Your task to perform on an android device: turn on location history Image 0: 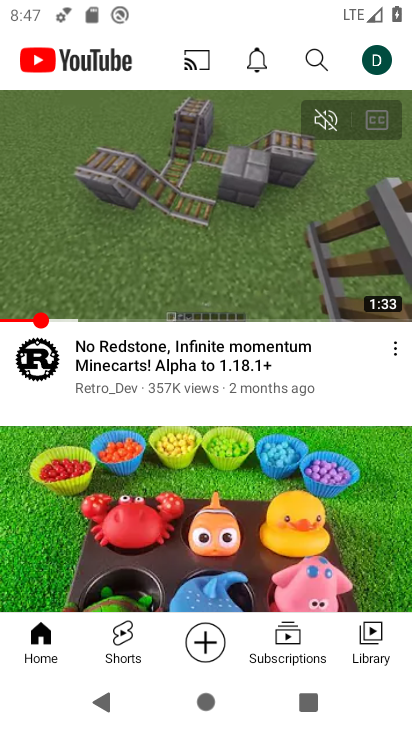
Step 0: press home button
Your task to perform on an android device: turn on location history Image 1: 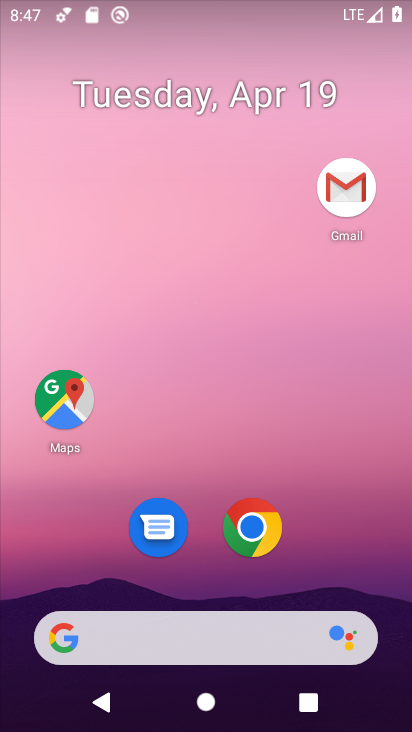
Step 1: drag from (384, 477) to (384, 103)
Your task to perform on an android device: turn on location history Image 2: 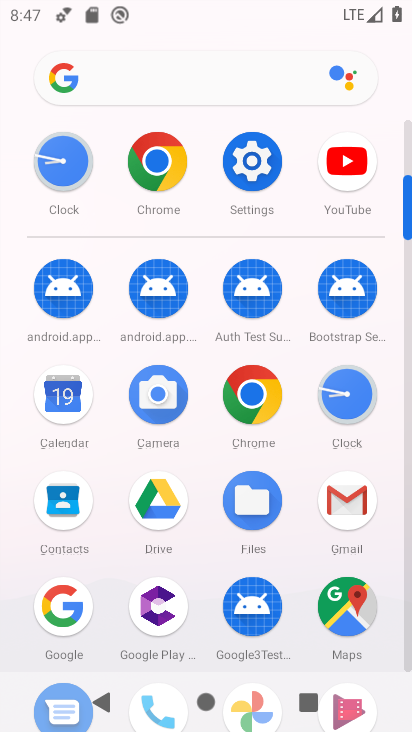
Step 2: click (261, 176)
Your task to perform on an android device: turn on location history Image 3: 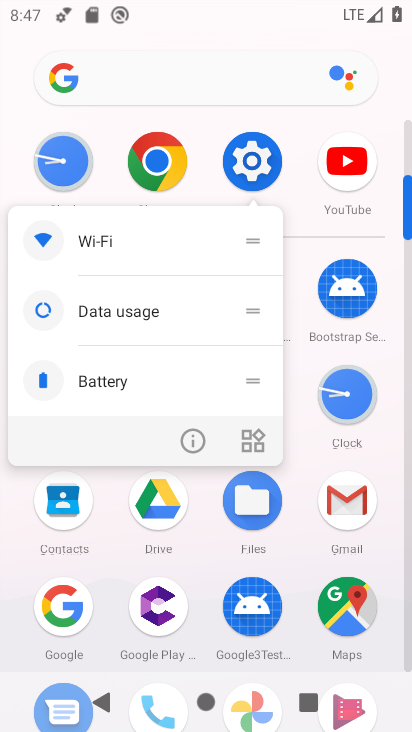
Step 3: click (261, 176)
Your task to perform on an android device: turn on location history Image 4: 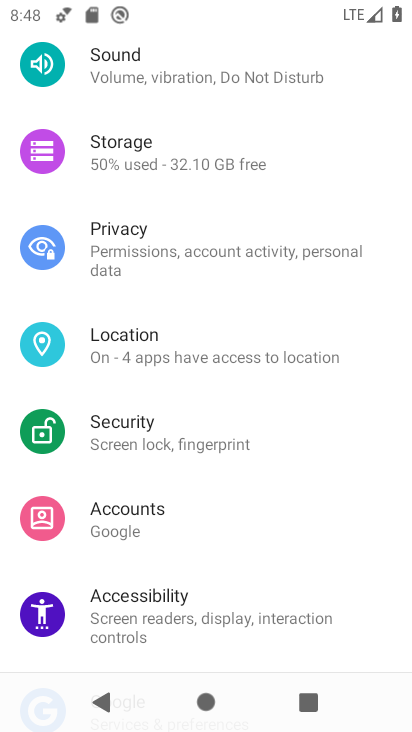
Step 4: drag from (358, 470) to (373, 157)
Your task to perform on an android device: turn on location history Image 5: 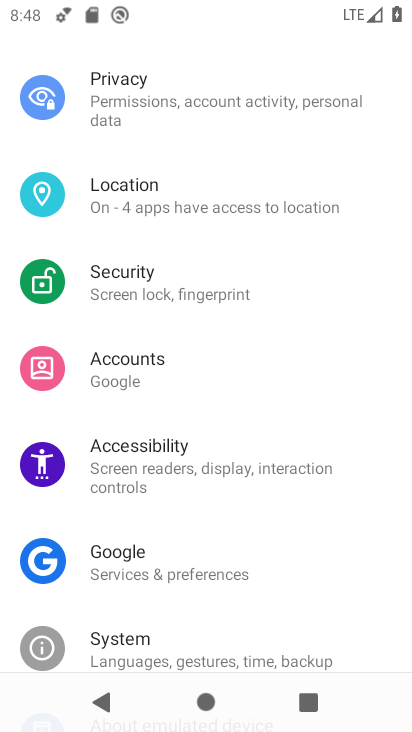
Step 5: drag from (358, 553) to (374, 319)
Your task to perform on an android device: turn on location history Image 6: 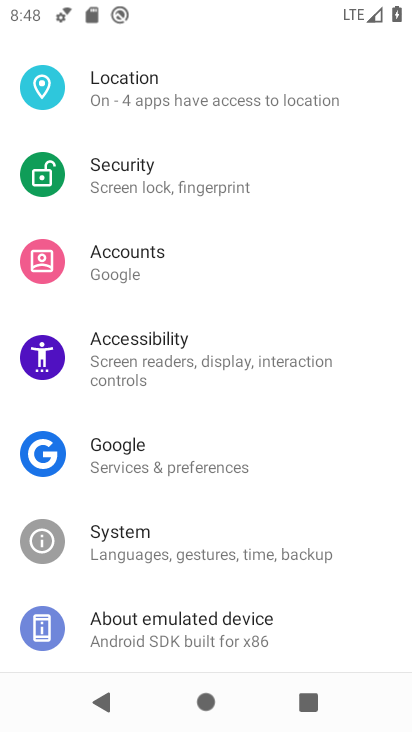
Step 6: click (147, 81)
Your task to perform on an android device: turn on location history Image 7: 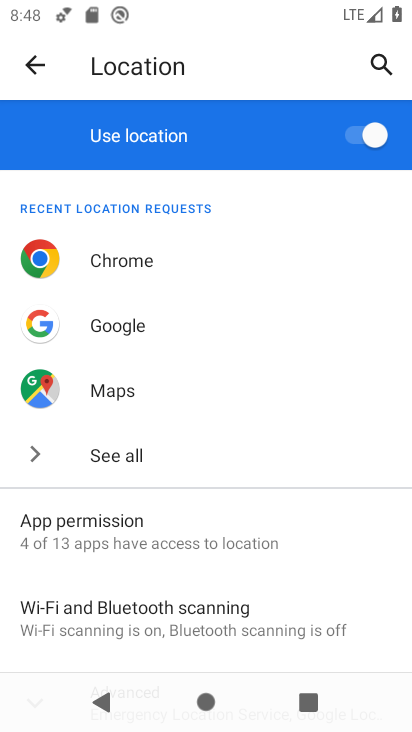
Step 7: drag from (345, 533) to (339, 270)
Your task to perform on an android device: turn on location history Image 8: 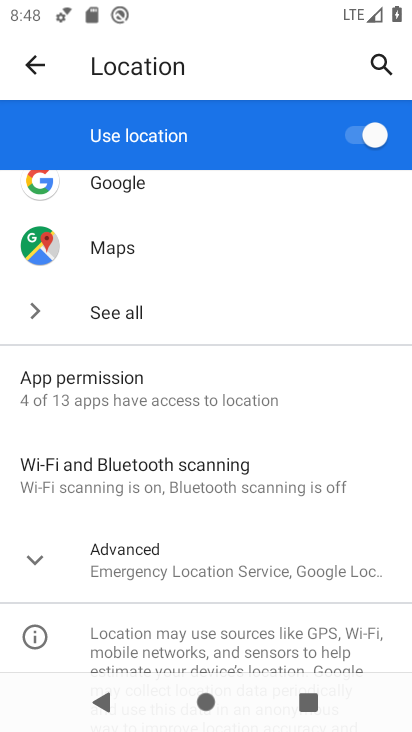
Step 8: click (324, 564)
Your task to perform on an android device: turn on location history Image 9: 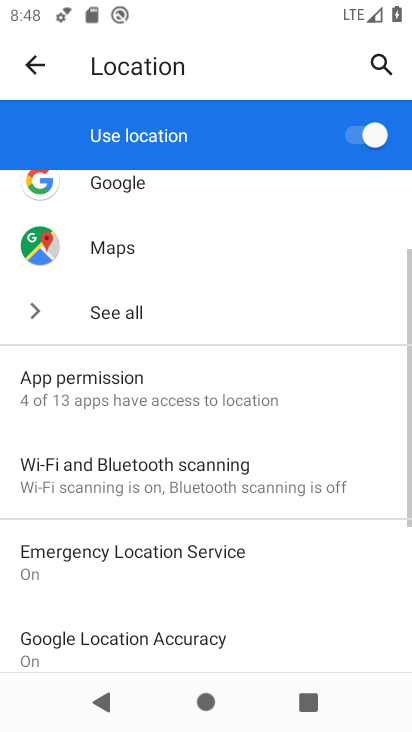
Step 9: drag from (371, 584) to (360, 326)
Your task to perform on an android device: turn on location history Image 10: 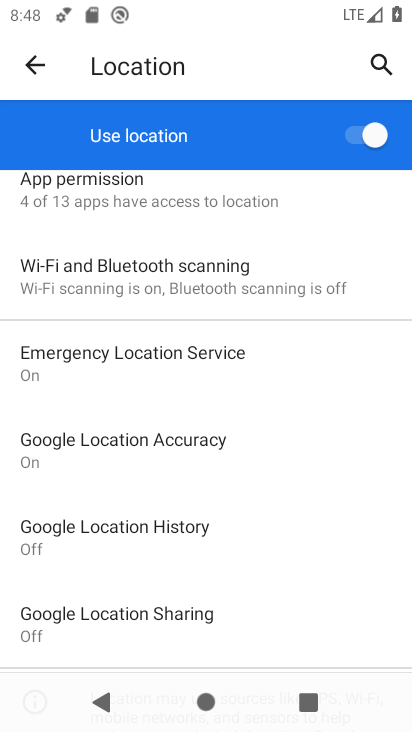
Step 10: click (191, 535)
Your task to perform on an android device: turn on location history Image 11: 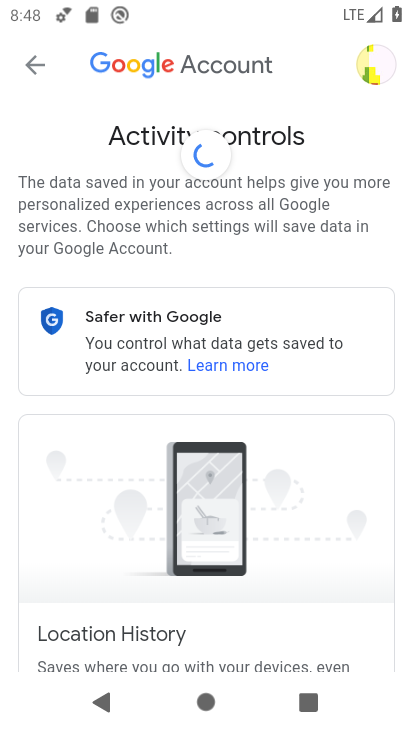
Step 11: drag from (345, 466) to (349, 193)
Your task to perform on an android device: turn on location history Image 12: 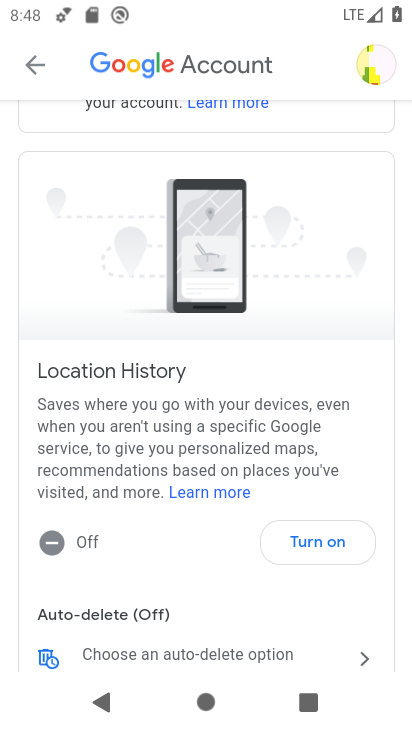
Step 12: drag from (269, 390) to (301, 297)
Your task to perform on an android device: turn on location history Image 13: 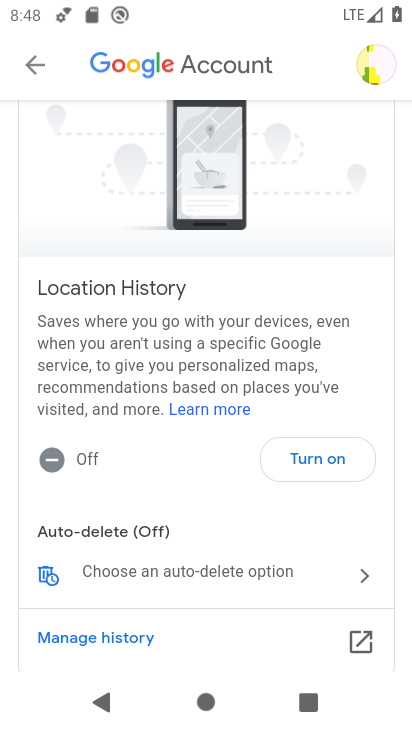
Step 13: click (333, 451)
Your task to perform on an android device: turn on location history Image 14: 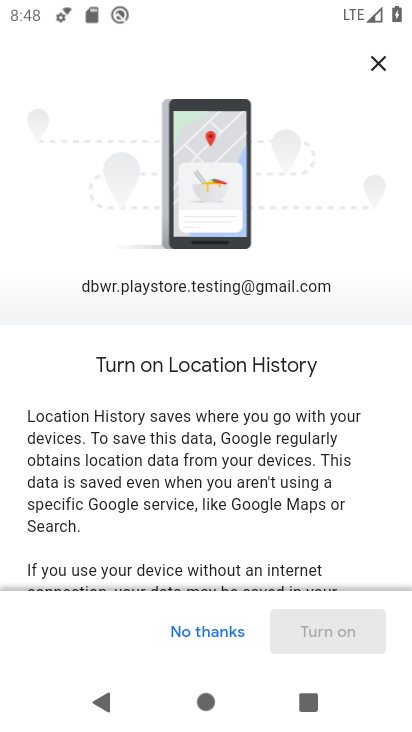
Step 14: drag from (306, 536) to (331, 190)
Your task to perform on an android device: turn on location history Image 15: 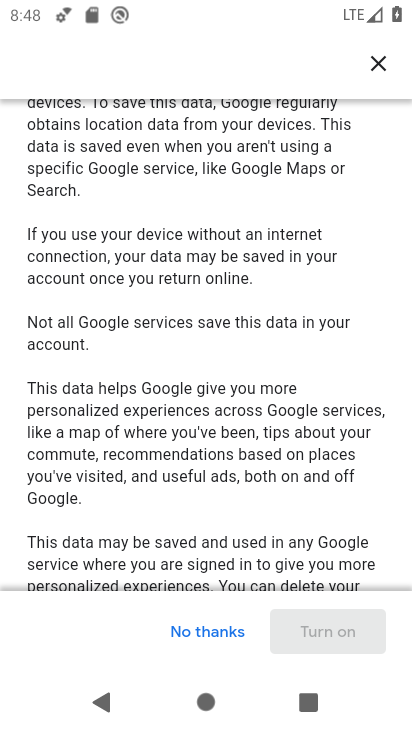
Step 15: drag from (310, 453) to (311, 204)
Your task to perform on an android device: turn on location history Image 16: 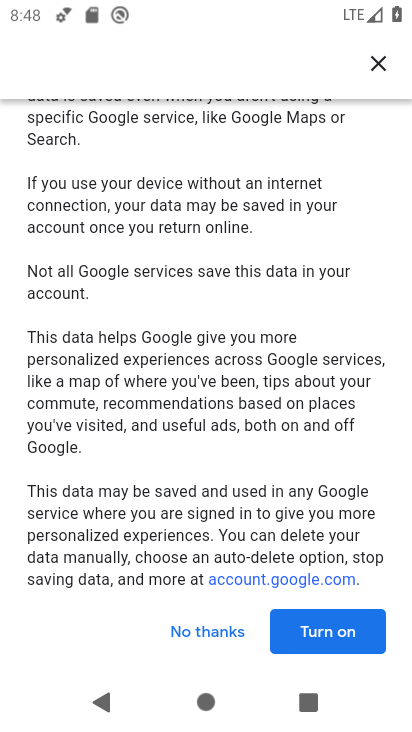
Step 16: click (331, 629)
Your task to perform on an android device: turn on location history Image 17: 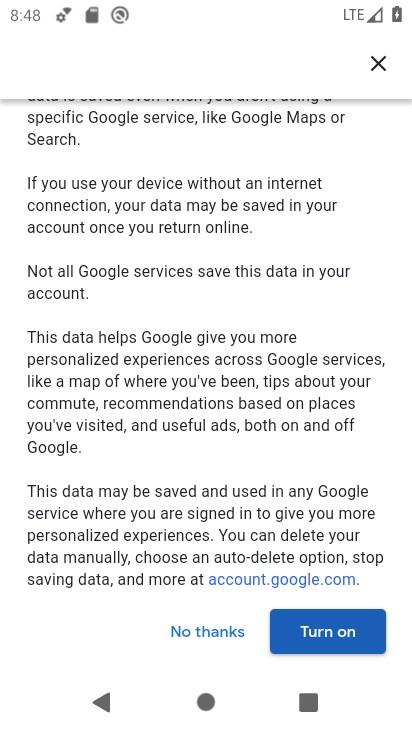
Step 17: click (346, 638)
Your task to perform on an android device: turn on location history Image 18: 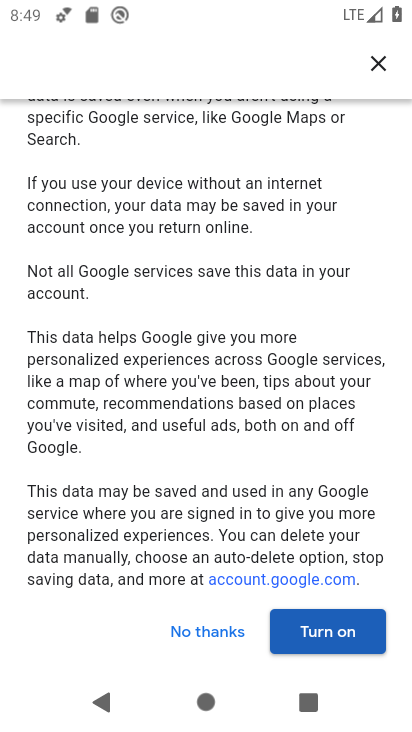
Step 18: click (343, 634)
Your task to perform on an android device: turn on location history Image 19: 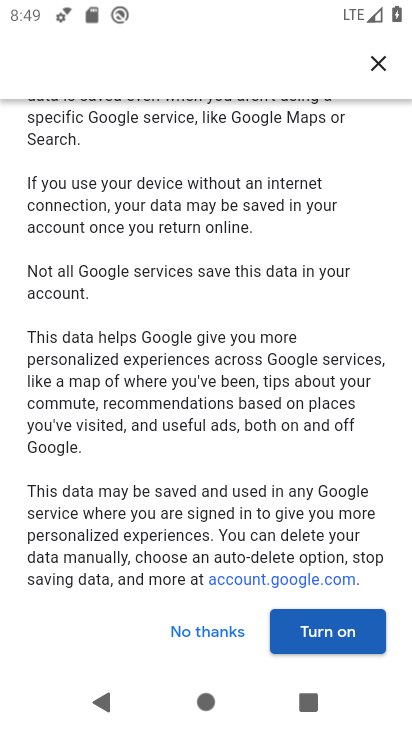
Step 19: click (317, 638)
Your task to perform on an android device: turn on location history Image 20: 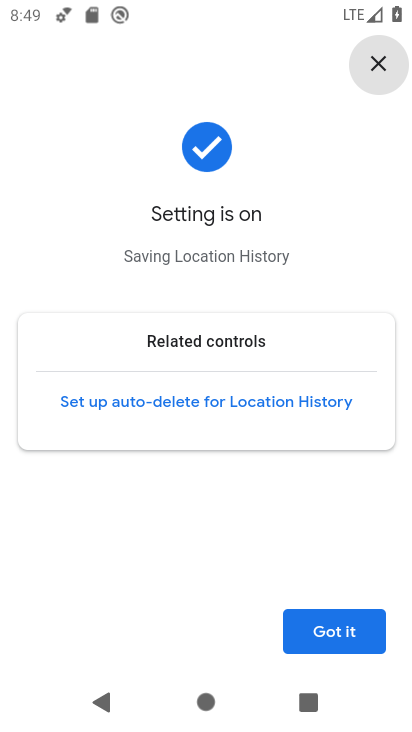
Step 20: task complete